Your task to perform on an android device: change the clock display to analog Image 0: 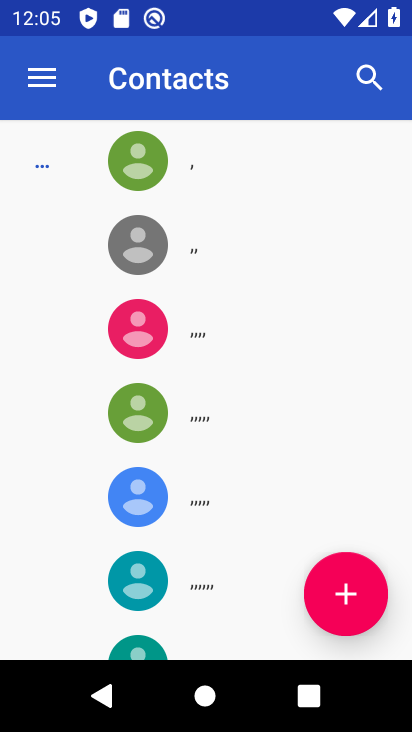
Step 0: press home button
Your task to perform on an android device: change the clock display to analog Image 1: 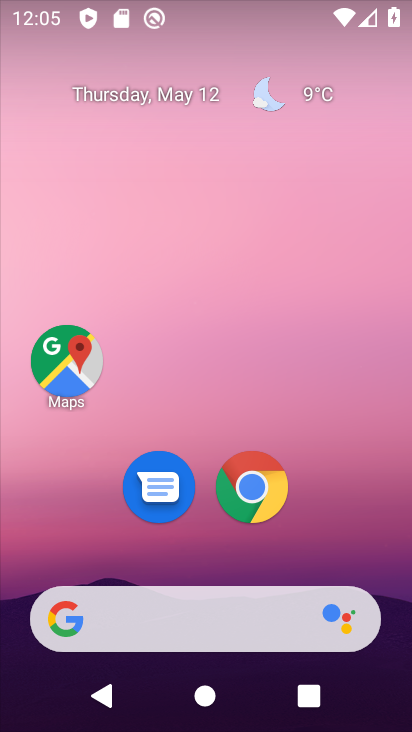
Step 1: drag from (376, 572) to (321, 101)
Your task to perform on an android device: change the clock display to analog Image 2: 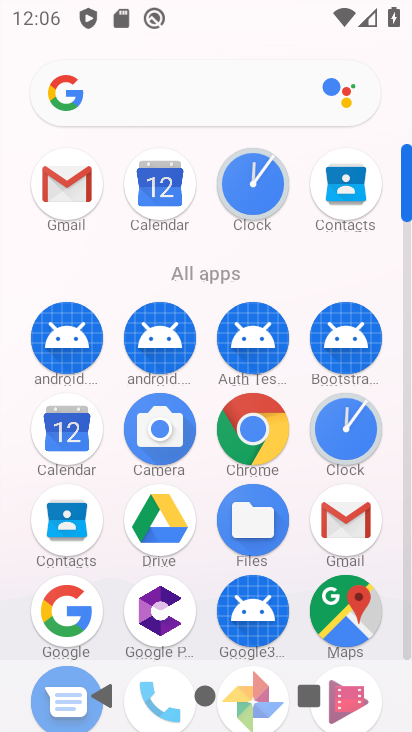
Step 2: click (409, 634)
Your task to perform on an android device: change the clock display to analog Image 3: 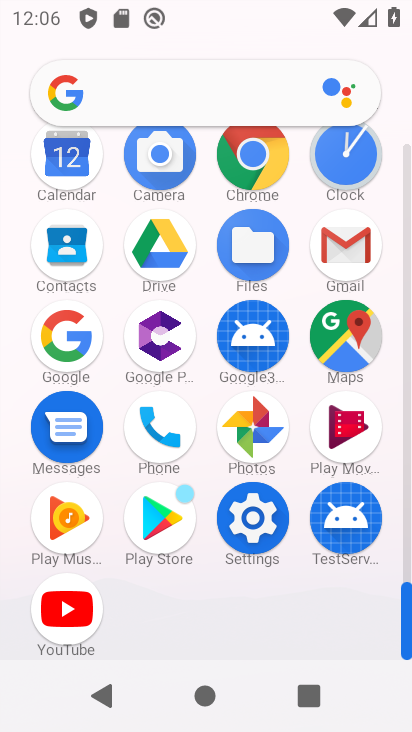
Step 3: click (343, 152)
Your task to perform on an android device: change the clock display to analog Image 4: 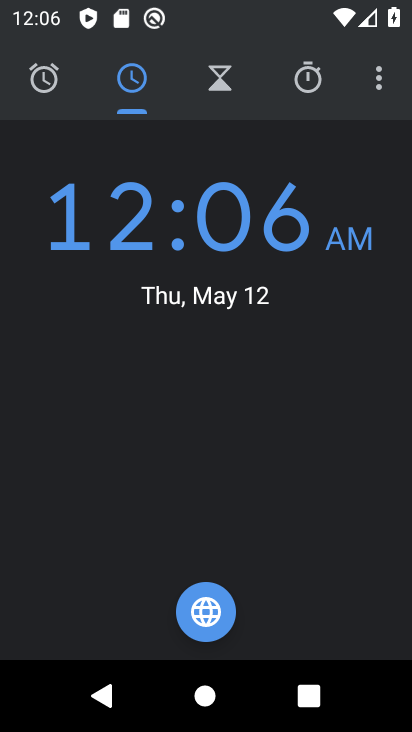
Step 4: click (376, 83)
Your task to perform on an android device: change the clock display to analog Image 5: 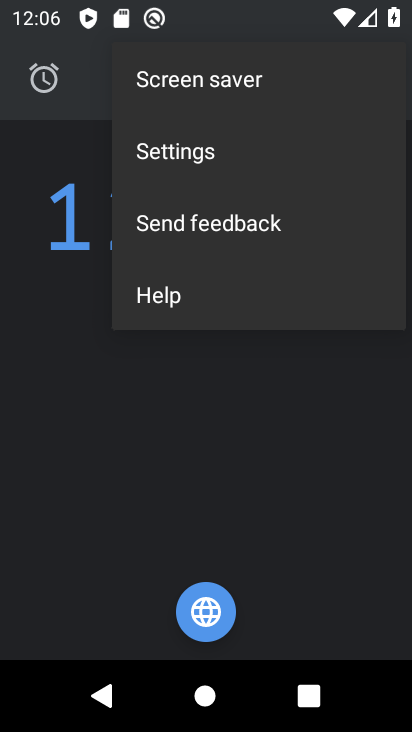
Step 5: click (155, 153)
Your task to perform on an android device: change the clock display to analog Image 6: 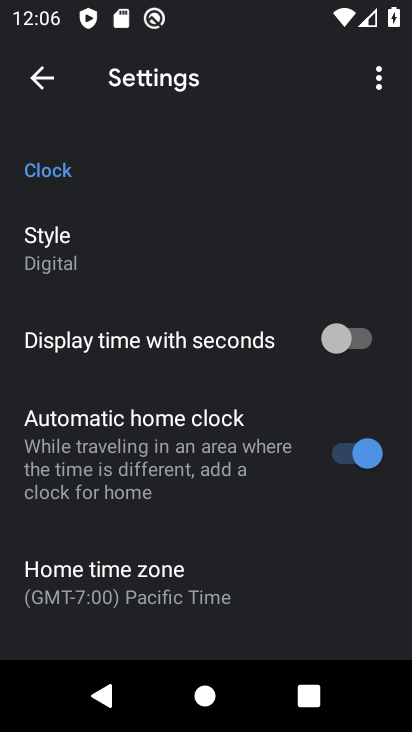
Step 6: click (45, 243)
Your task to perform on an android device: change the clock display to analog Image 7: 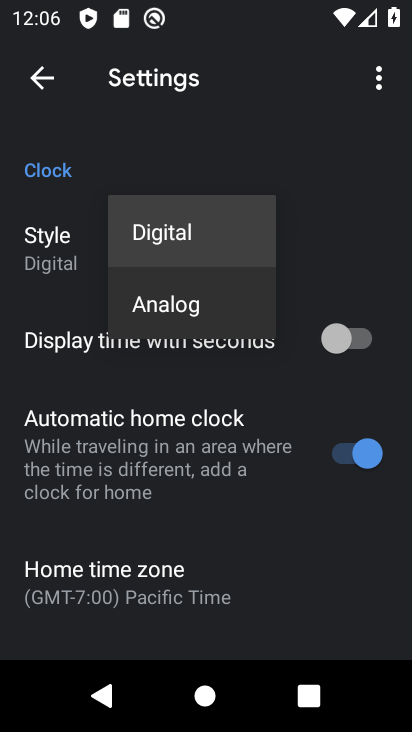
Step 7: click (168, 312)
Your task to perform on an android device: change the clock display to analog Image 8: 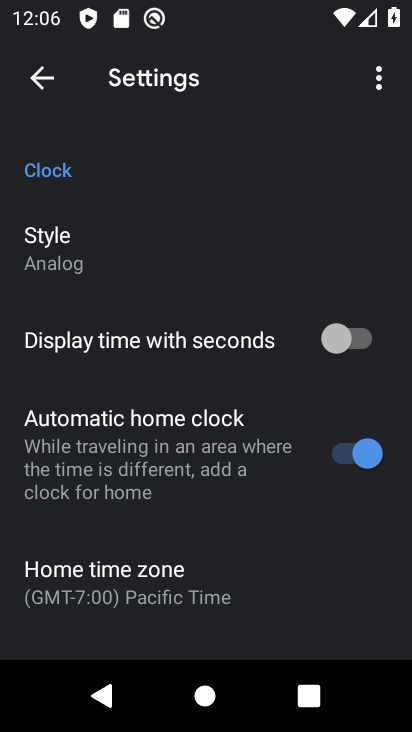
Step 8: task complete